Your task to perform on an android device: visit the assistant section in the google photos Image 0: 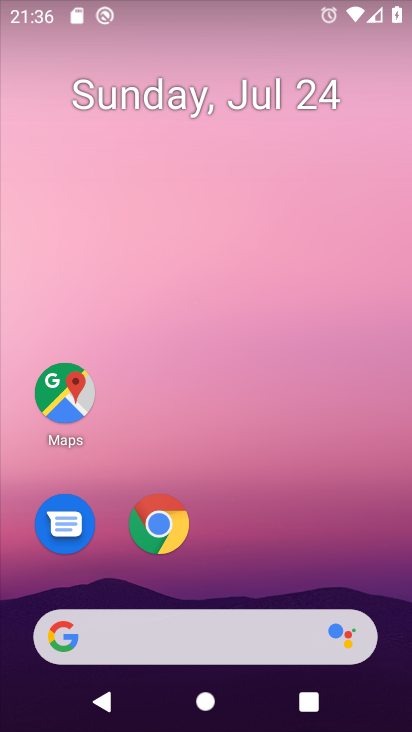
Step 0: drag from (316, 540) to (338, 41)
Your task to perform on an android device: visit the assistant section in the google photos Image 1: 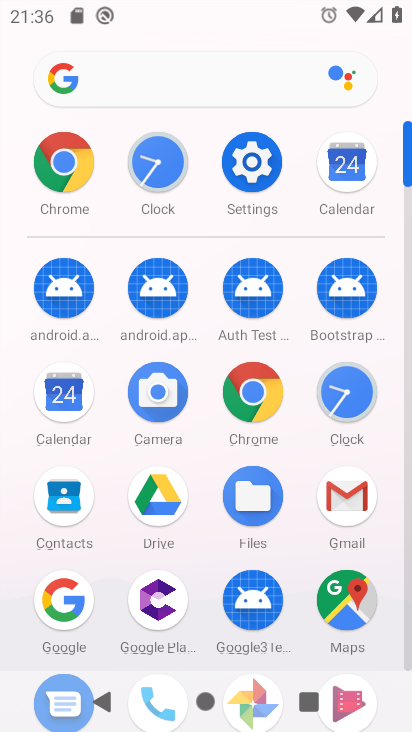
Step 1: drag from (201, 569) to (234, 303)
Your task to perform on an android device: visit the assistant section in the google photos Image 2: 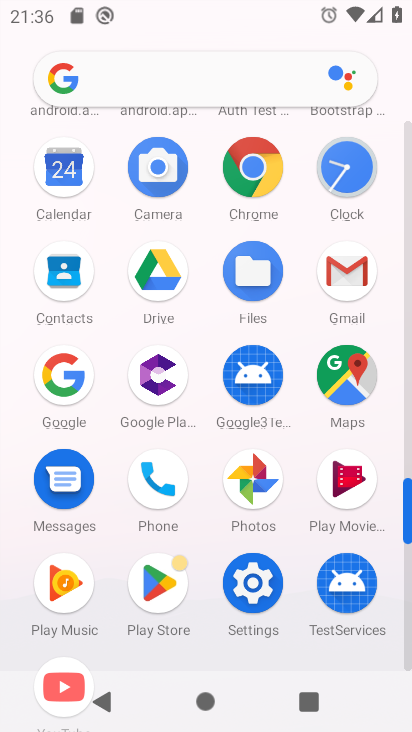
Step 2: click (269, 485)
Your task to perform on an android device: visit the assistant section in the google photos Image 3: 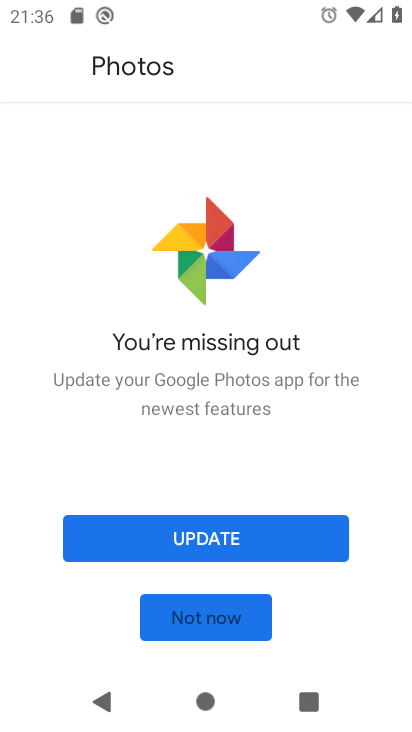
Step 3: click (214, 619)
Your task to perform on an android device: visit the assistant section in the google photos Image 4: 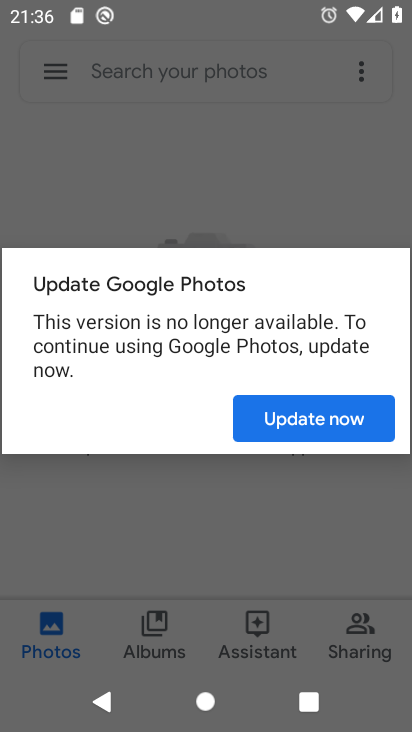
Step 4: click (296, 413)
Your task to perform on an android device: visit the assistant section in the google photos Image 5: 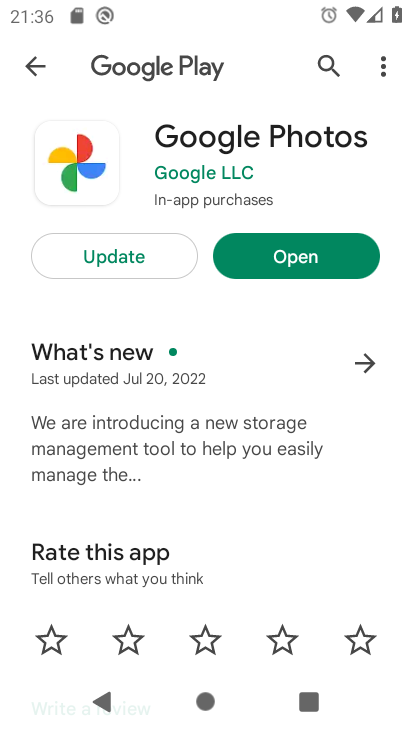
Step 5: click (334, 253)
Your task to perform on an android device: visit the assistant section in the google photos Image 6: 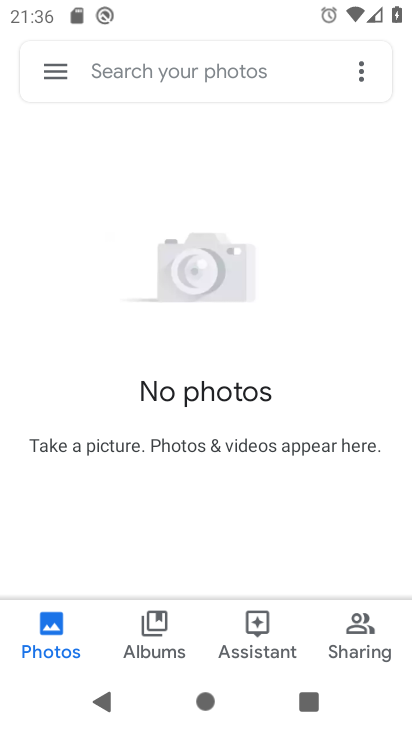
Step 6: click (258, 643)
Your task to perform on an android device: visit the assistant section in the google photos Image 7: 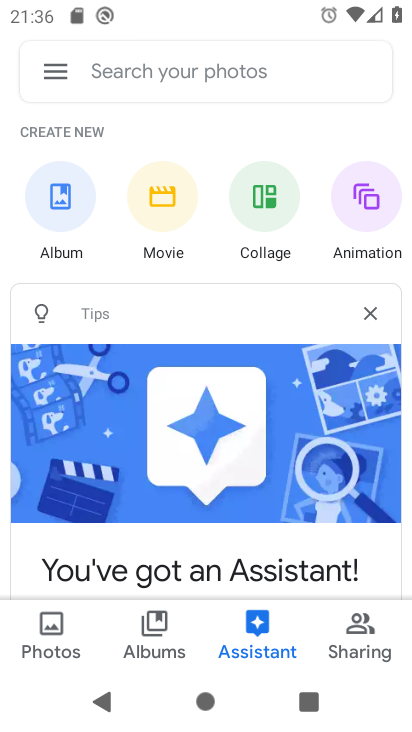
Step 7: task complete